Your task to perform on an android device: Open the calendar and show me this week's events Image 0: 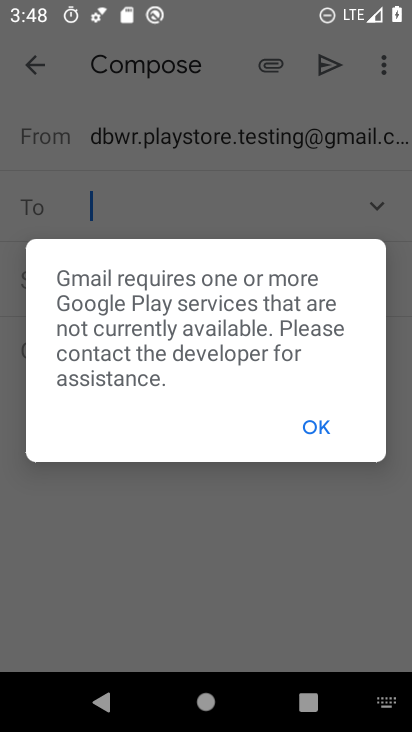
Step 0: press home button
Your task to perform on an android device: Open the calendar and show me this week's events Image 1: 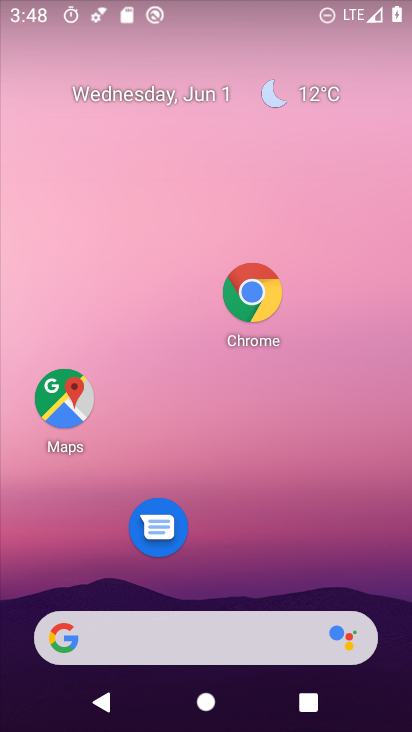
Step 1: drag from (205, 573) to (233, 173)
Your task to perform on an android device: Open the calendar and show me this week's events Image 2: 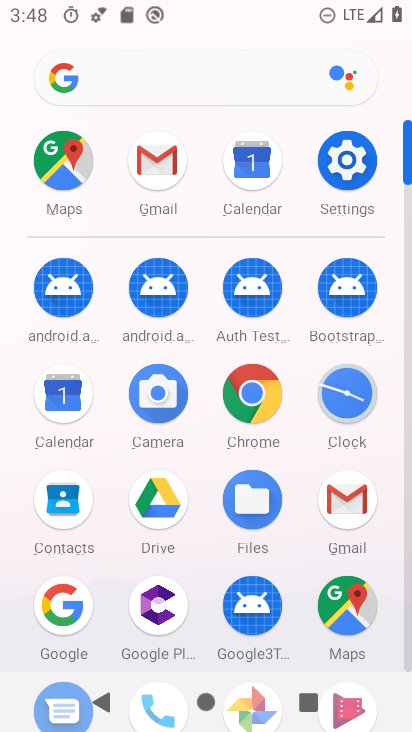
Step 2: click (71, 417)
Your task to perform on an android device: Open the calendar and show me this week's events Image 3: 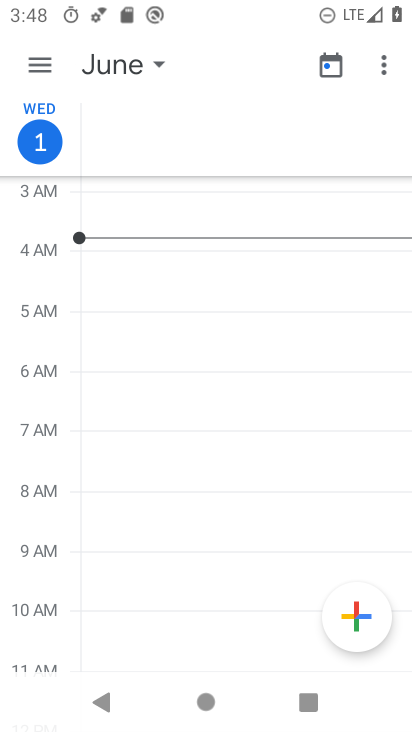
Step 3: click (59, 58)
Your task to perform on an android device: Open the calendar and show me this week's events Image 4: 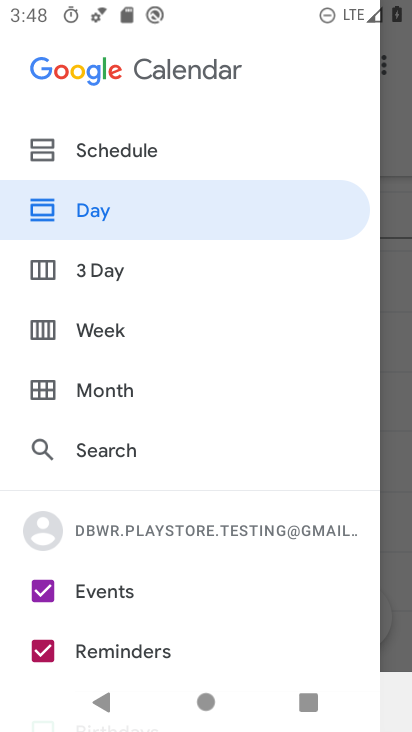
Step 4: click (106, 205)
Your task to perform on an android device: Open the calendar and show me this week's events Image 5: 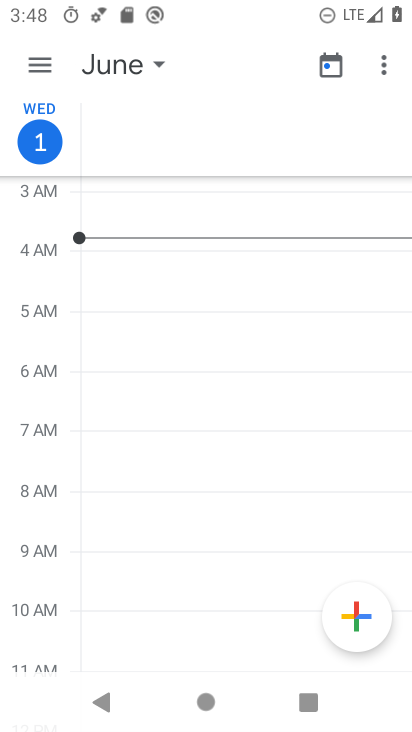
Step 5: click (41, 63)
Your task to perform on an android device: Open the calendar and show me this week's events Image 6: 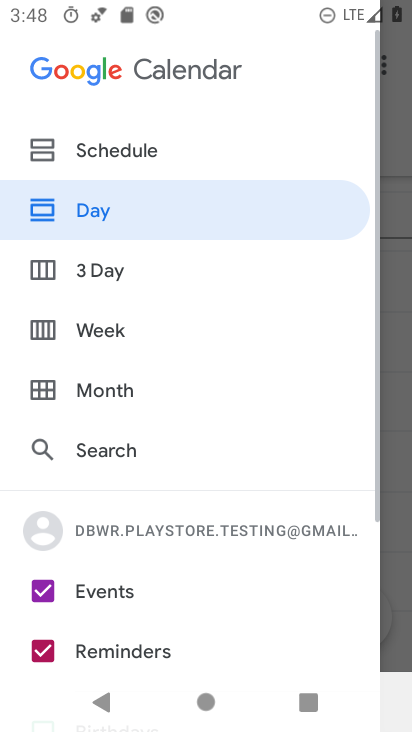
Step 6: click (133, 136)
Your task to perform on an android device: Open the calendar and show me this week's events Image 7: 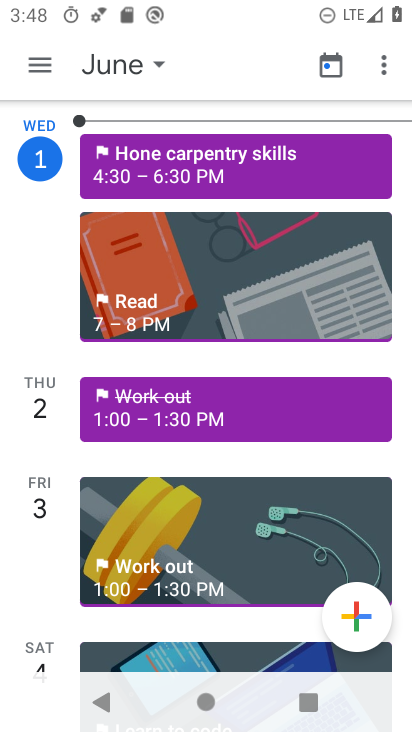
Step 7: task complete